Your task to perform on an android device: Show me the alarms in the clock app Image 0: 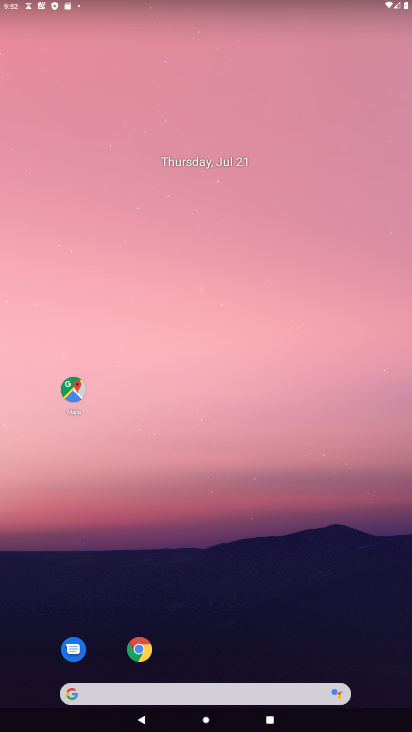
Step 0: click (321, 584)
Your task to perform on an android device: Show me the alarms in the clock app Image 1: 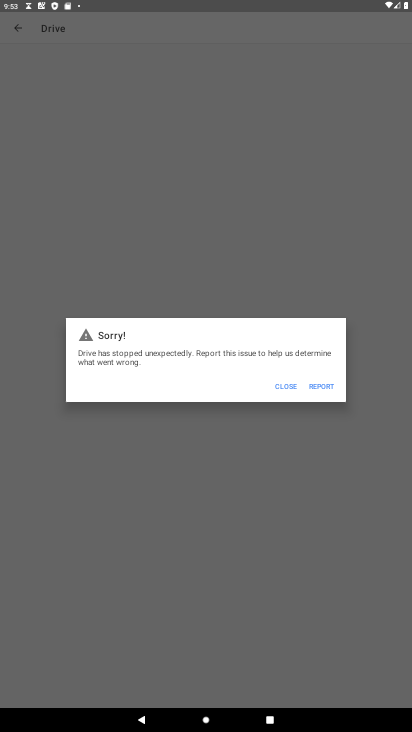
Step 1: click (348, 453)
Your task to perform on an android device: Show me the alarms in the clock app Image 2: 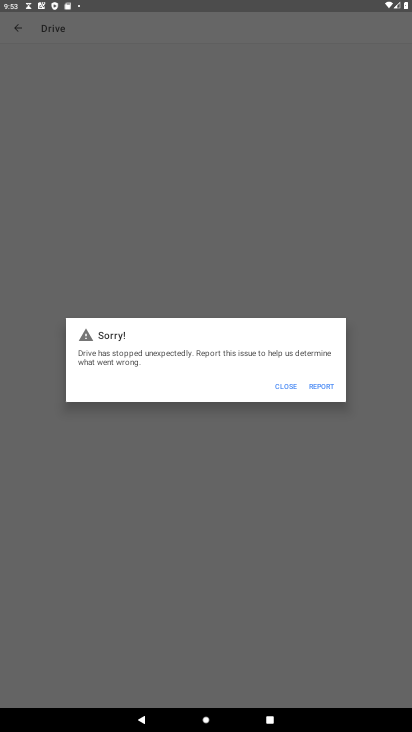
Step 2: press home button
Your task to perform on an android device: Show me the alarms in the clock app Image 3: 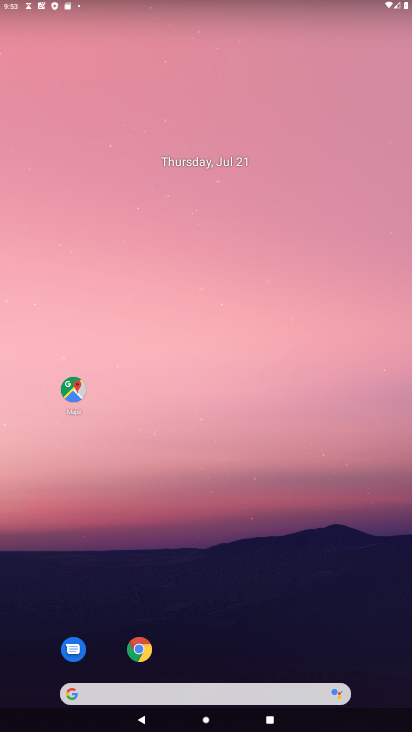
Step 3: drag from (303, 585) to (244, 120)
Your task to perform on an android device: Show me the alarms in the clock app Image 4: 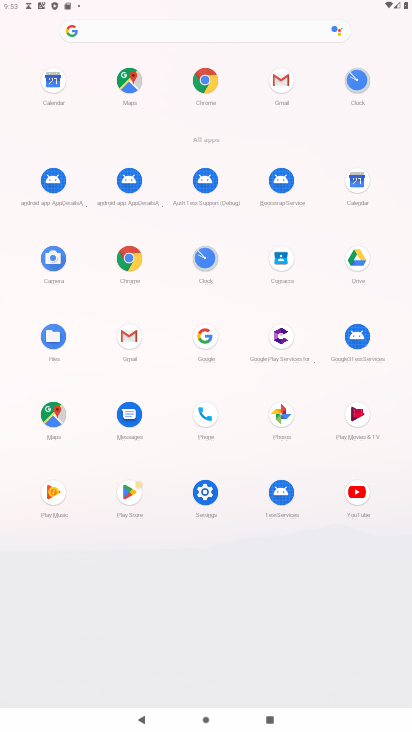
Step 4: click (210, 259)
Your task to perform on an android device: Show me the alarms in the clock app Image 5: 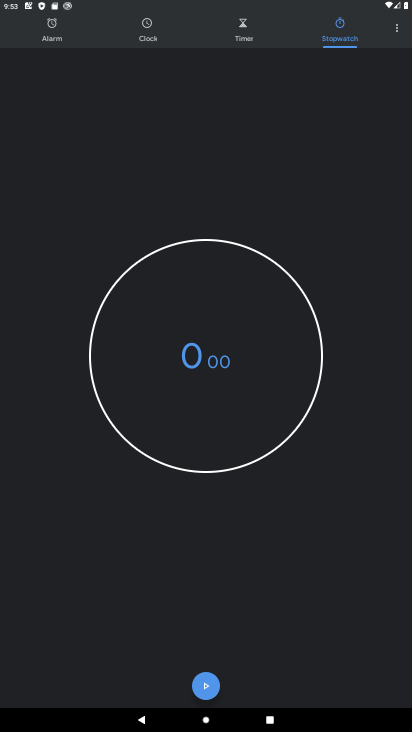
Step 5: click (145, 27)
Your task to perform on an android device: Show me the alarms in the clock app Image 6: 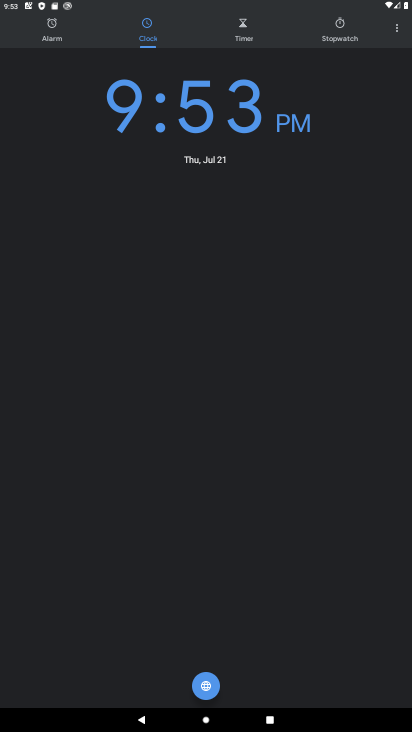
Step 6: click (62, 16)
Your task to perform on an android device: Show me the alarms in the clock app Image 7: 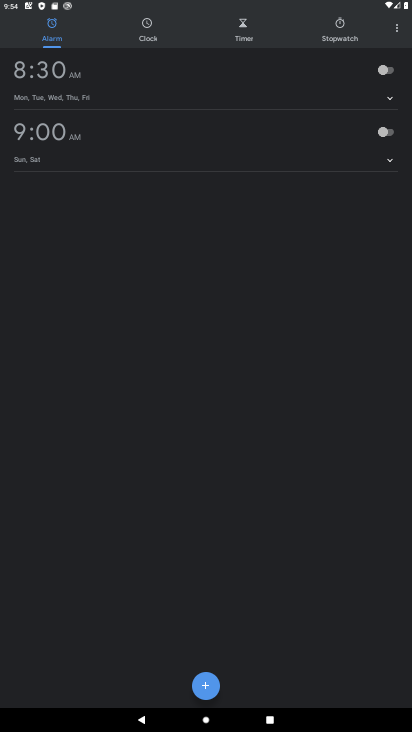
Step 7: task complete